Your task to perform on an android device: check storage Image 0: 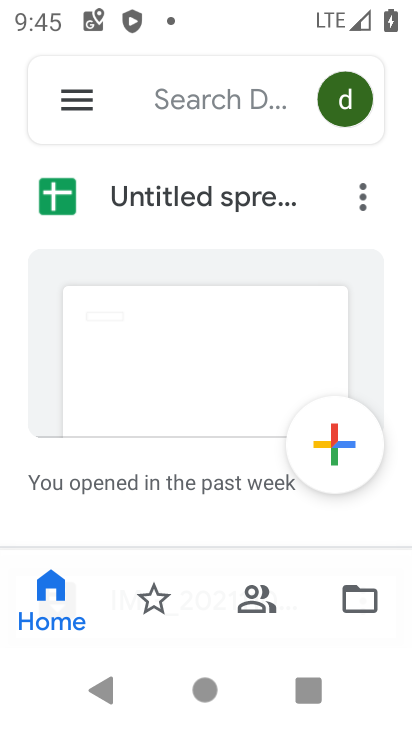
Step 0: press back button
Your task to perform on an android device: check storage Image 1: 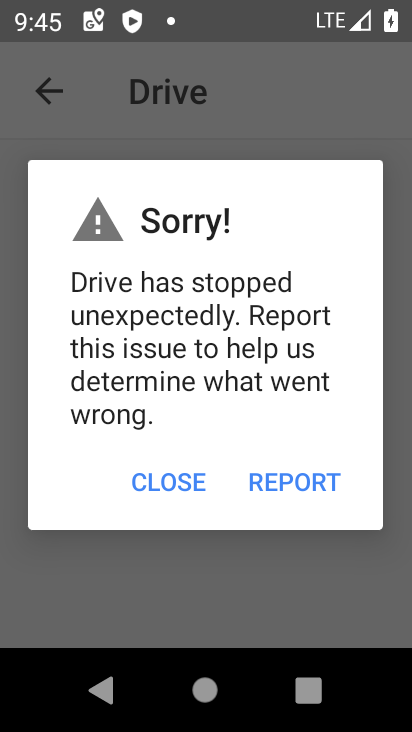
Step 1: press back button
Your task to perform on an android device: check storage Image 2: 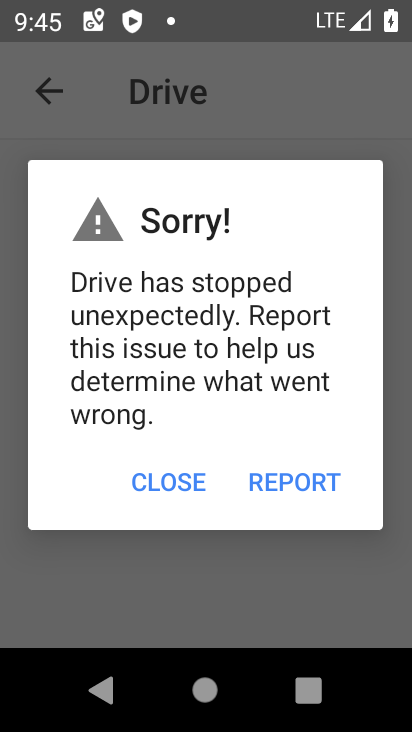
Step 2: press home button
Your task to perform on an android device: check storage Image 3: 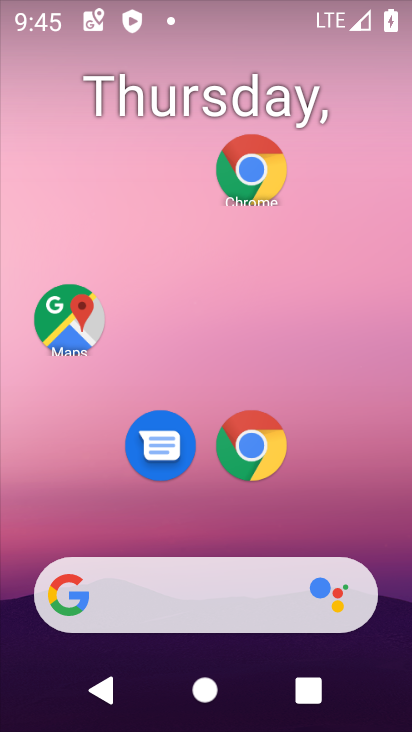
Step 3: drag from (198, 541) to (303, 58)
Your task to perform on an android device: check storage Image 4: 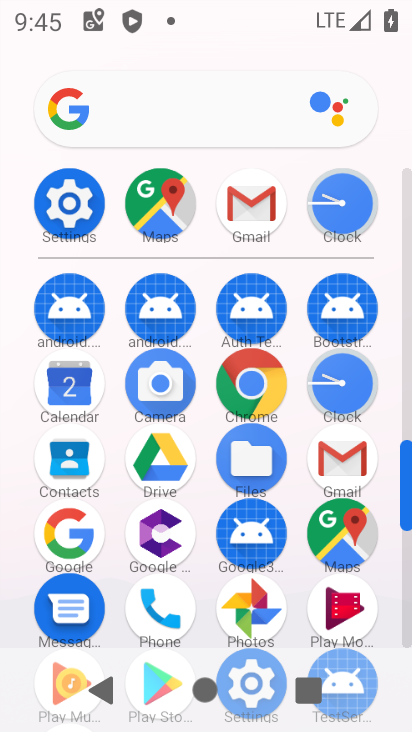
Step 4: click (82, 210)
Your task to perform on an android device: check storage Image 5: 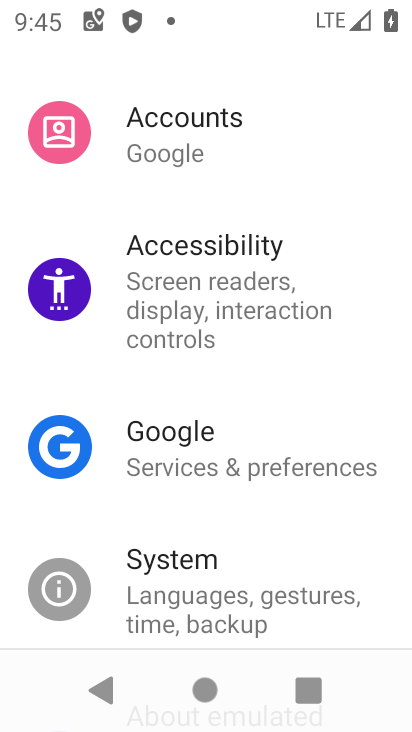
Step 5: drag from (199, 175) to (222, 639)
Your task to perform on an android device: check storage Image 6: 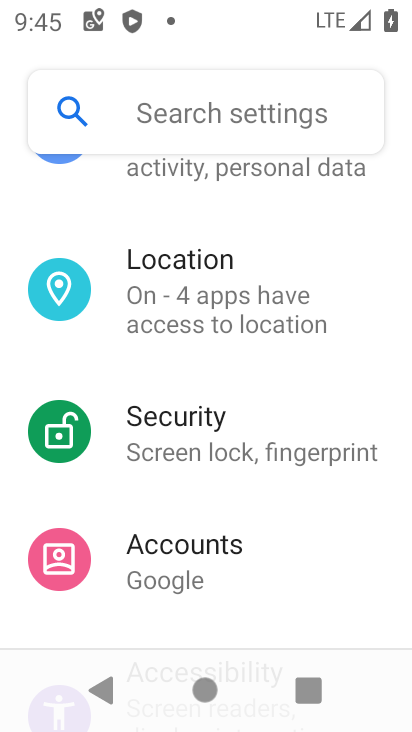
Step 6: drag from (208, 249) to (225, 564)
Your task to perform on an android device: check storage Image 7: 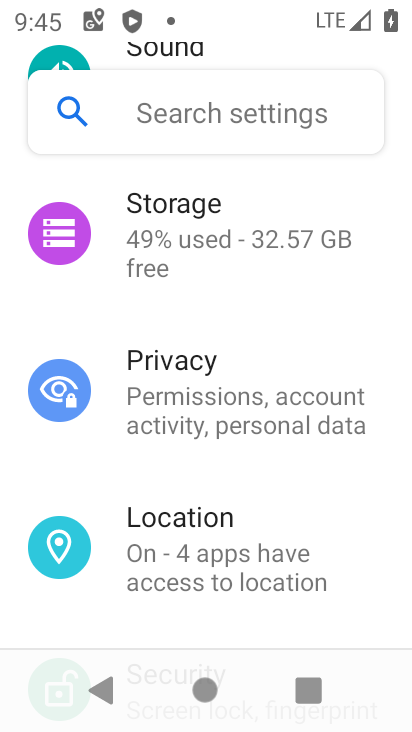
Step 7: click (204, 241)
Your task to perform on an android device: check storage Image 8: 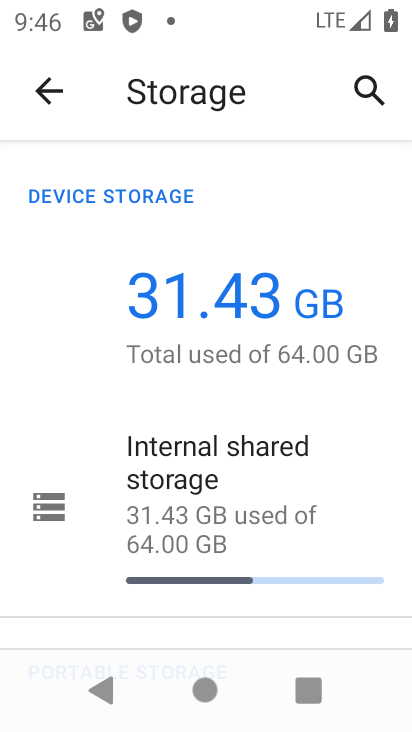
Step 8: task complete